Your task to perform on an android device: Who is the prime minister of Canada? Image 0: 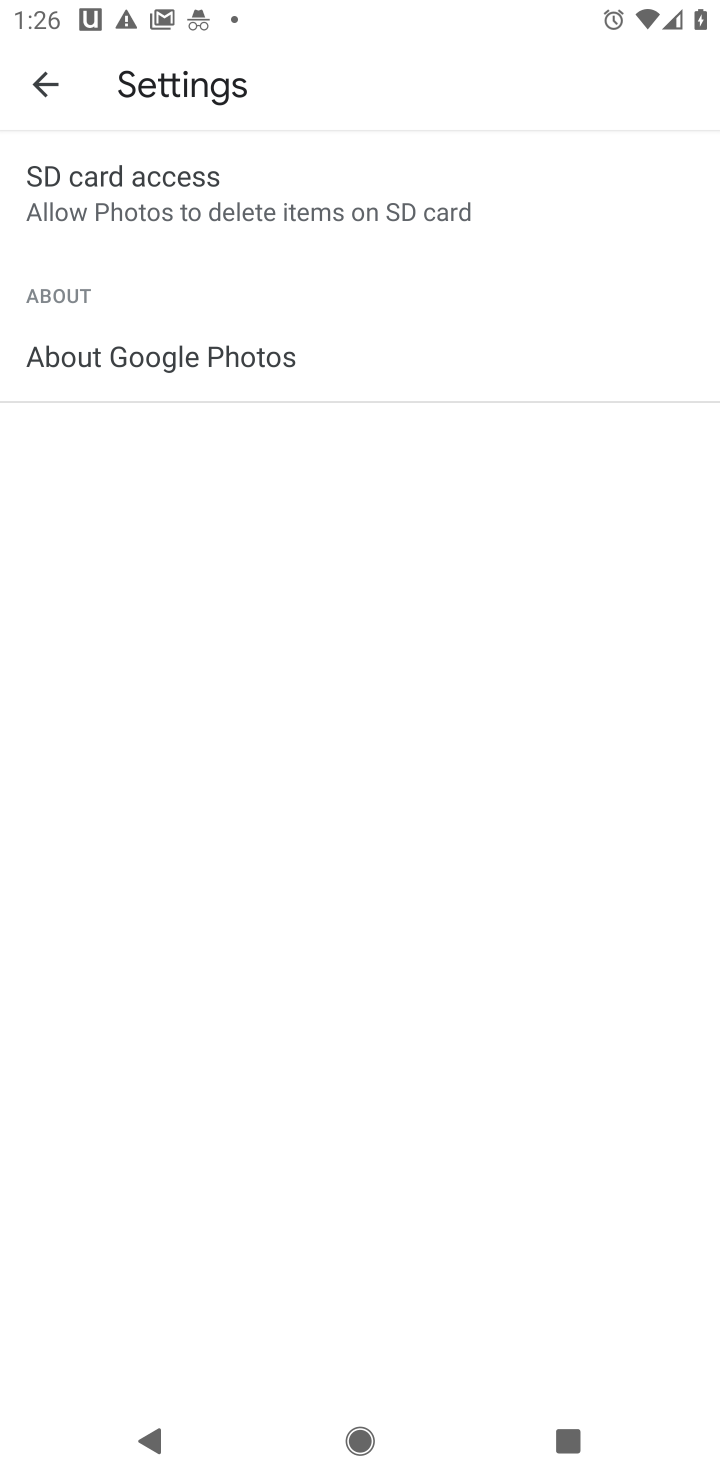
Step 0: press home button
Your task to perform on an android device: Who is the prime minister of Canada? Image 1: 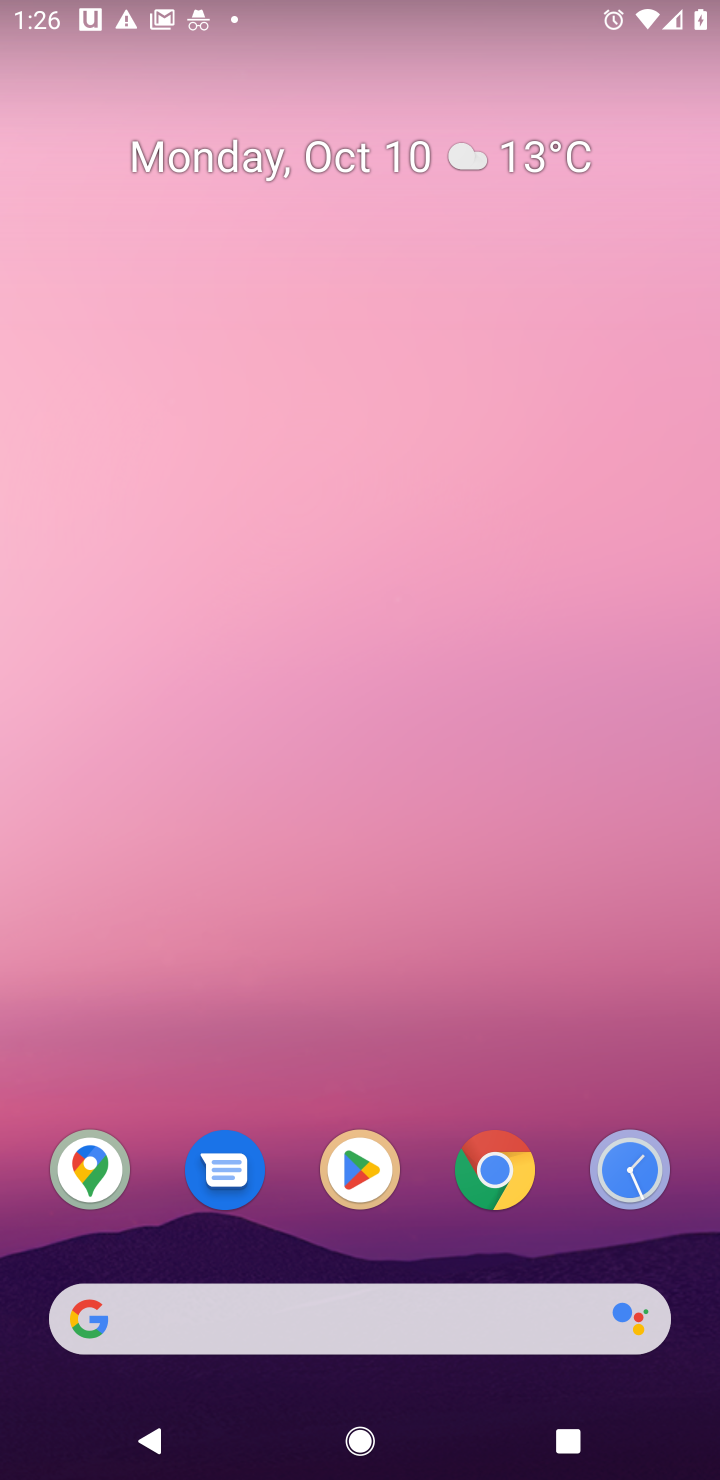
Step 1: click (485, 1171)
Your task to perform on an android device: Who is the prime minister of Canada? Image 2: 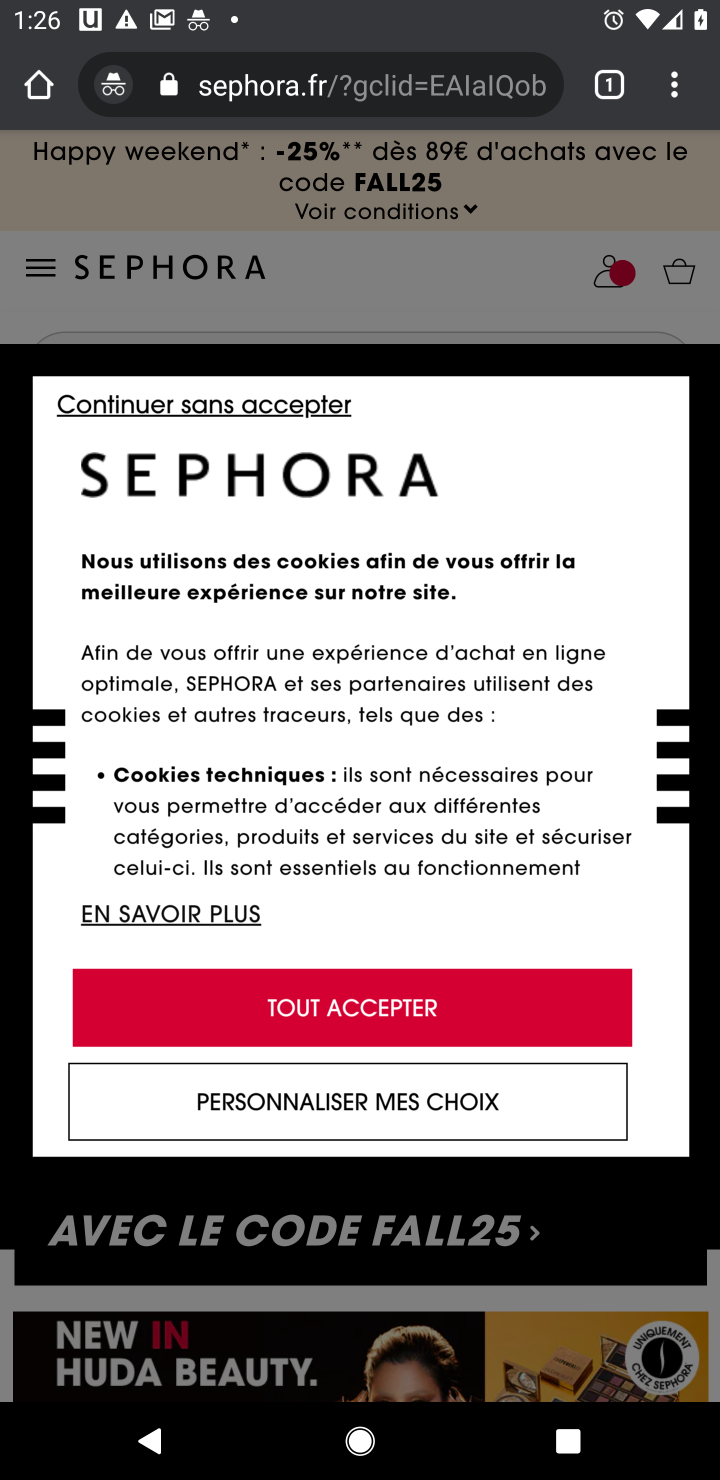
Step 2: click (363, 81)
Your task to perform on an android device: Who is the prime minister of Canada? Image 3: 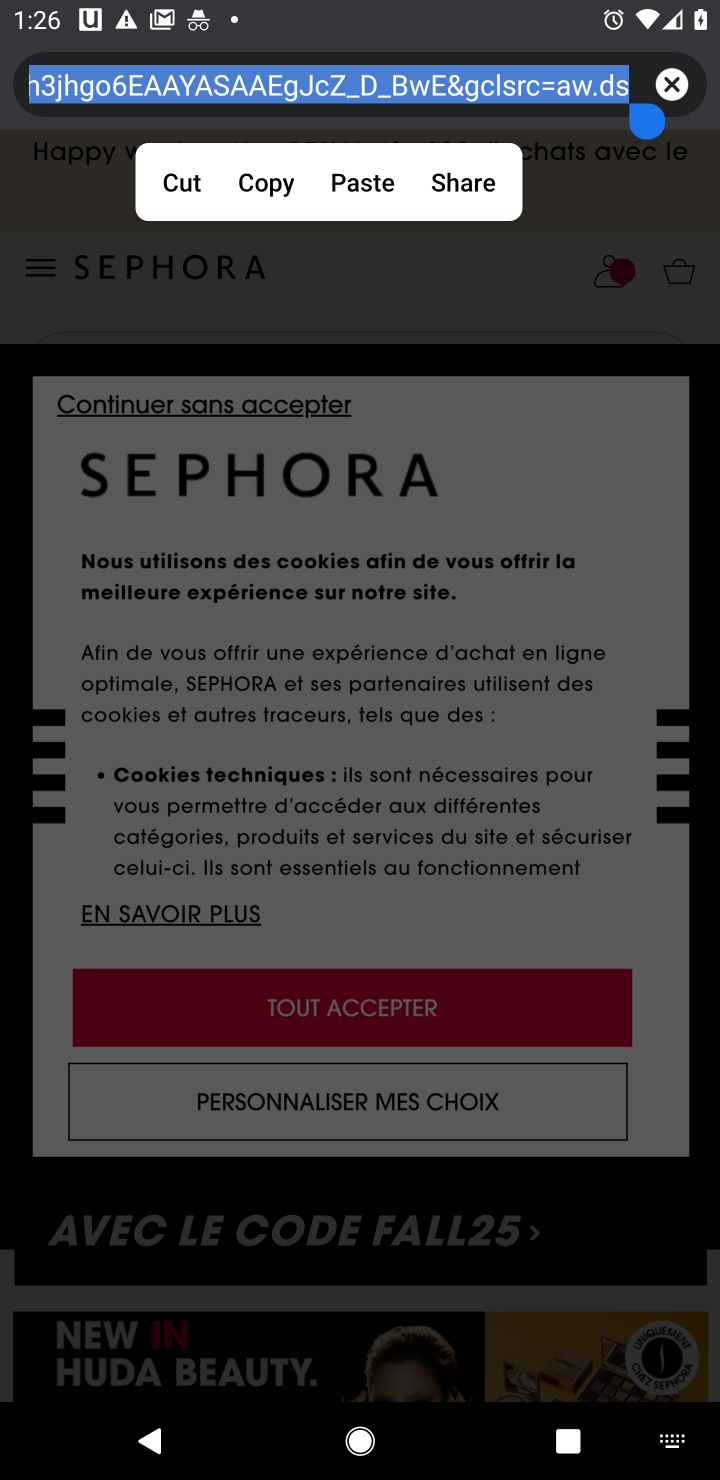
Step 3: click (670, 87)
Your task to perform on an android device: Who is the prime minister of Canada? Image 4: 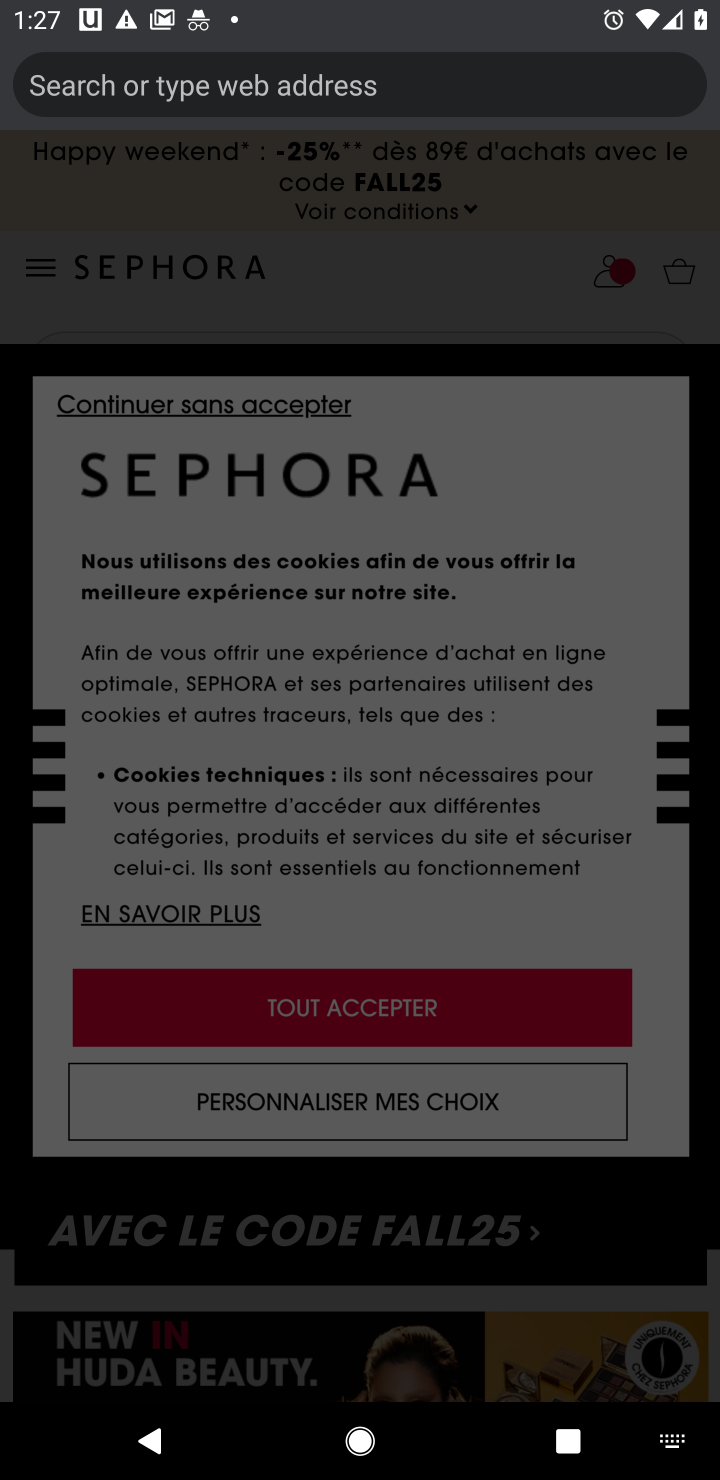
Step 4: type "who is the prime minister of canada"
Your task to perform on an android device: Who is the prime minister of Canada? Image 5: 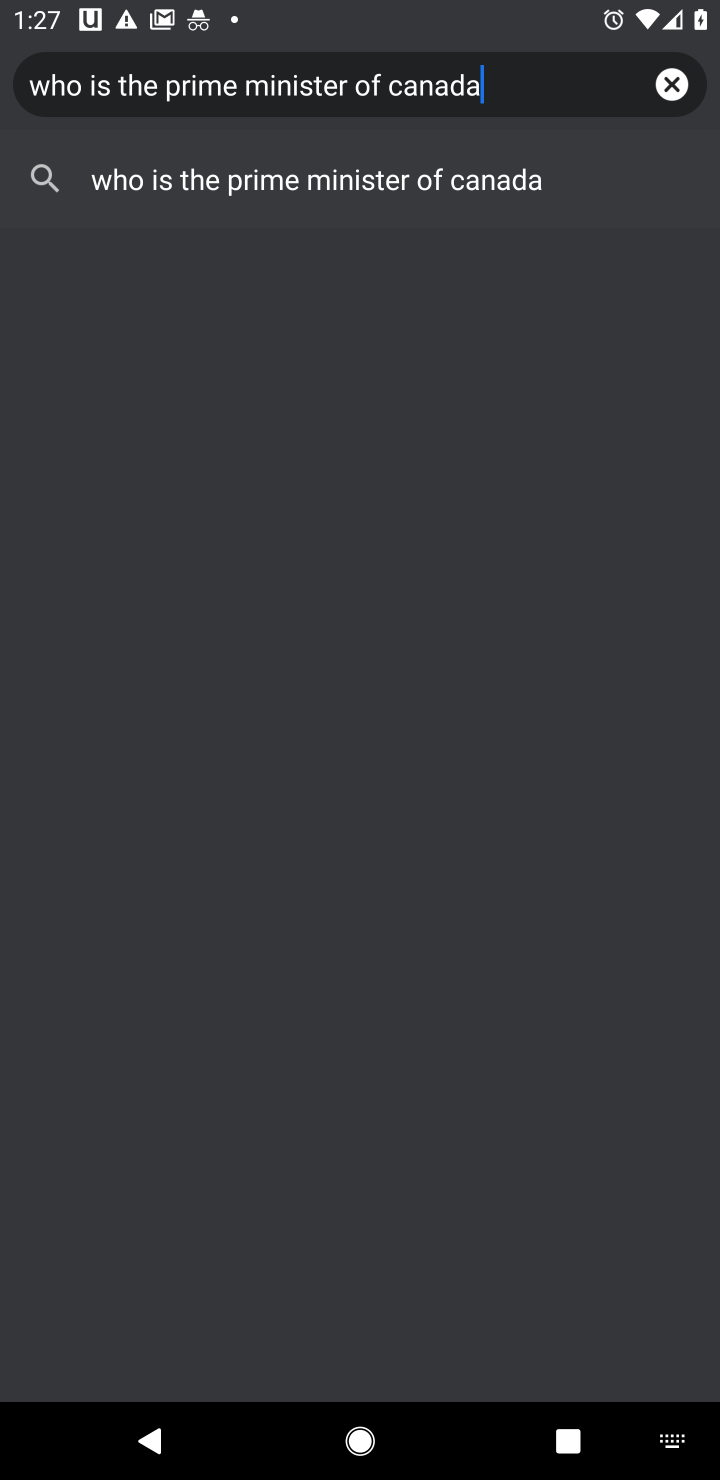
Step 5: click (243, 175)
Your task to perform on an android device: Who is the prime minister of Canada? Image 6: 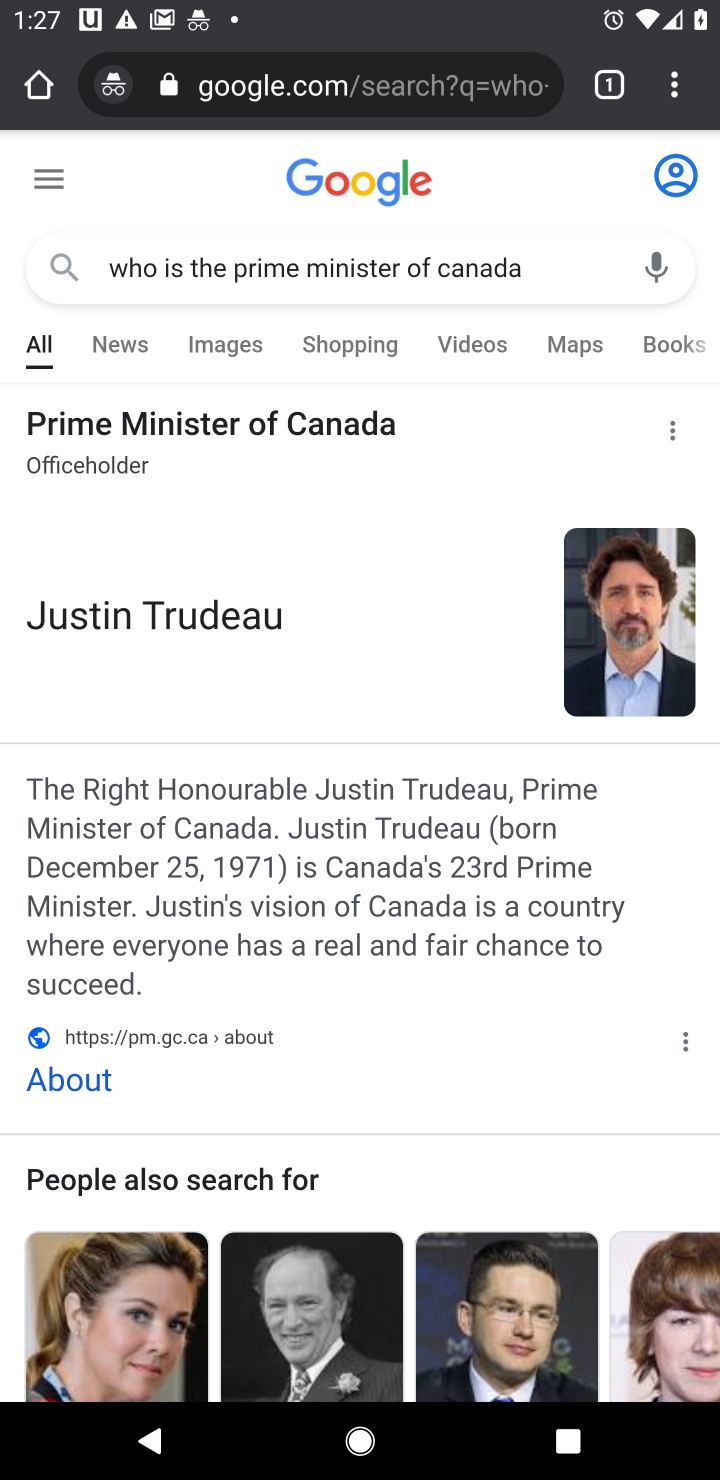
Step 6: task complete